Your task to perform on an android device: star an email in the gmail app Image 0: 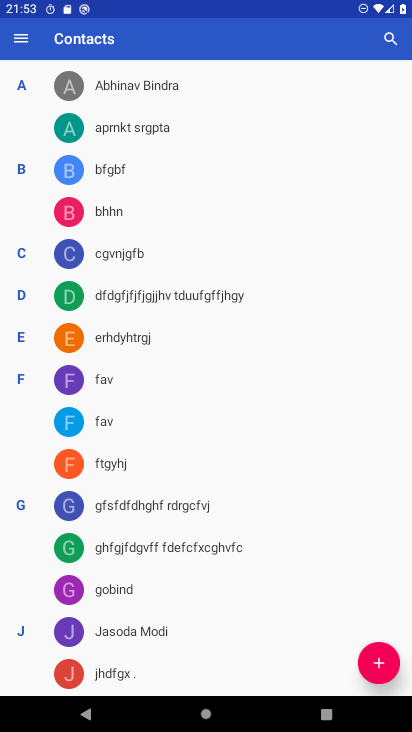
Step 0: press home button
Your task to perform on an android device: star an email in the gmail app Image 1: 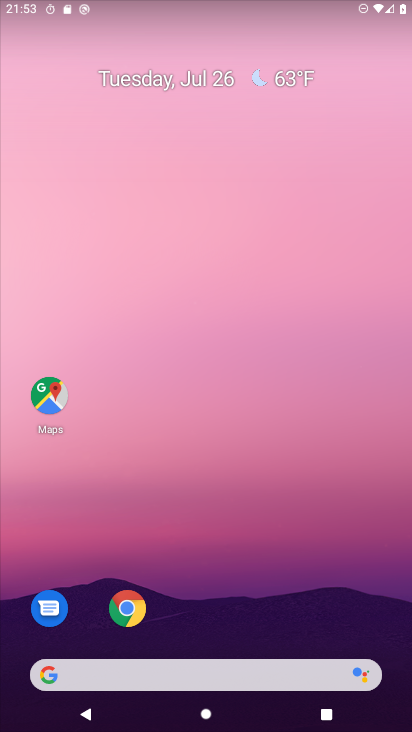
Step 1: click (257, 124)
Your task to perform on an android device: star an email in the gmail app Image 2: 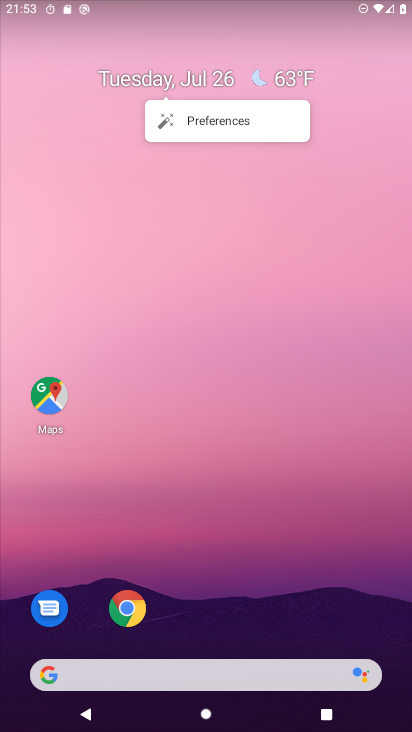
Step 2: drag from (28, 709) to (305, 115)
Your task to perform on an android device: star an email in the gmail app Image 3: 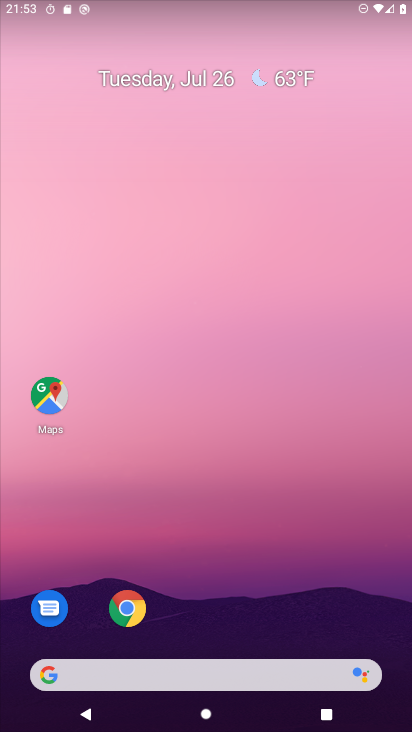
Step 3: drag from (26, 707) to (233, 34)
Your task to perform on an android device: star an email in the gmail app Image 4: 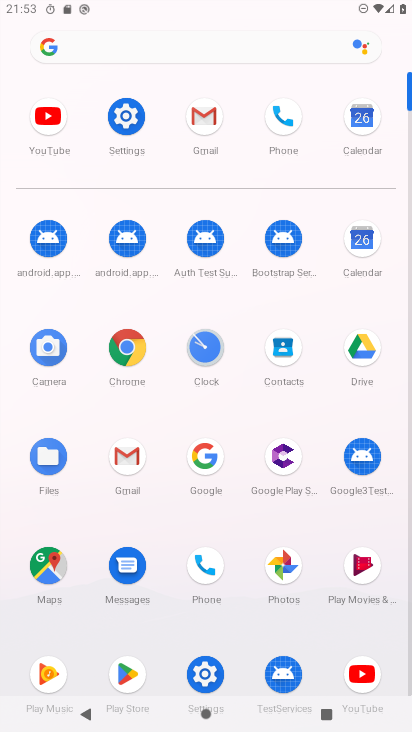
Step 4: click (137, 470)
Your task to perform on an android device: star an email in the gmail app Image 5: 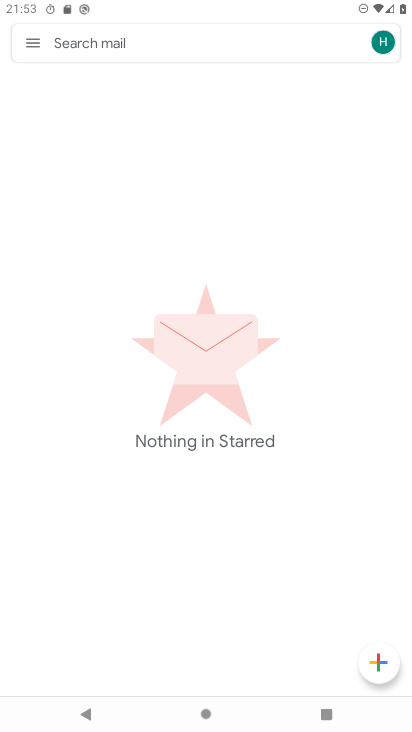
Step 5: click (30, 44)
Your task to perform on an android device: star an email in the gmail app Image 6: 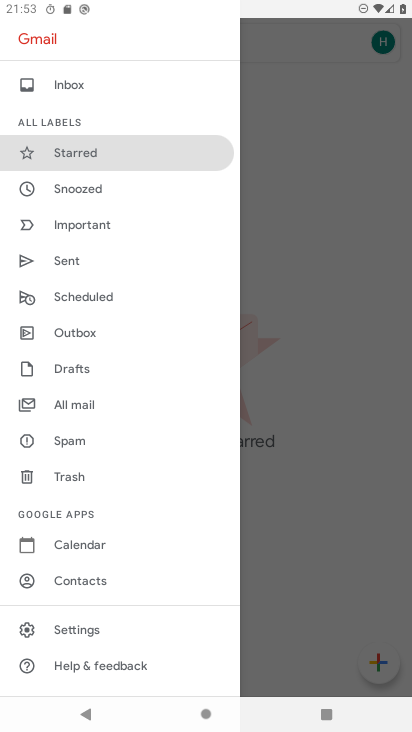
Step 6: click (55, 158)
Your task to perform on an android device: star an email in the gmail app Image 7: 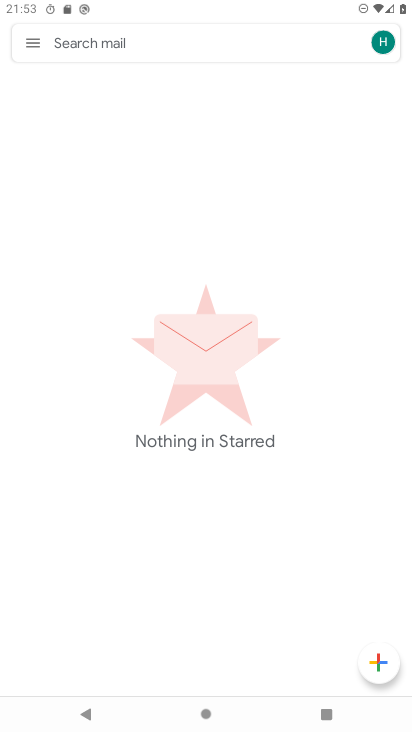
Step 7: task complete